Your task to perform on an android device: Open location settings Image 0: 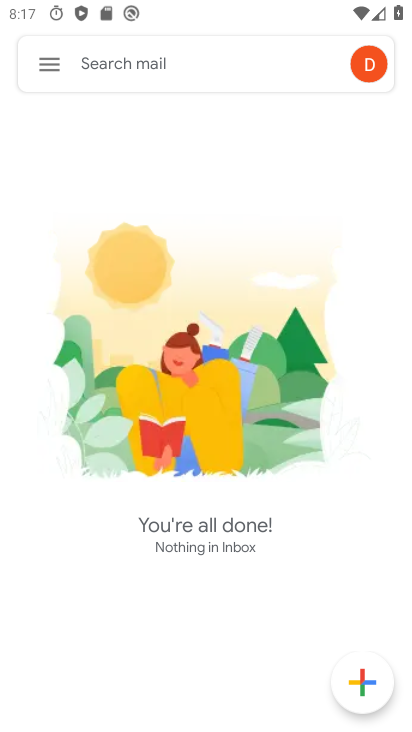
Step 0: press home button
Your task to perform on an android device: Open location settings Image 1: 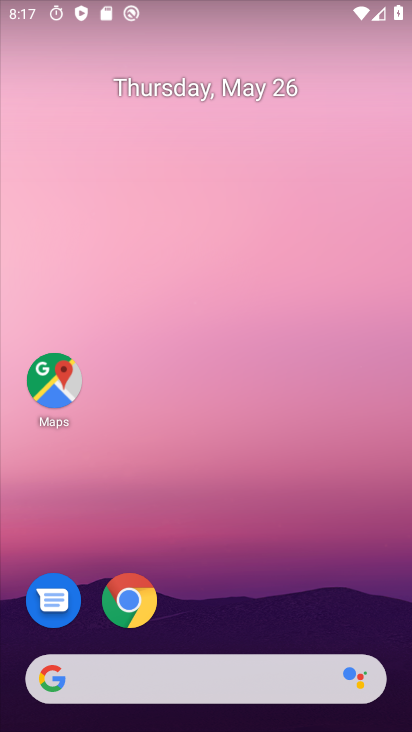
Step 1: drag from (231, 592) to (372, 12)
Your task to perform on an android device: Open location settings Image 2: 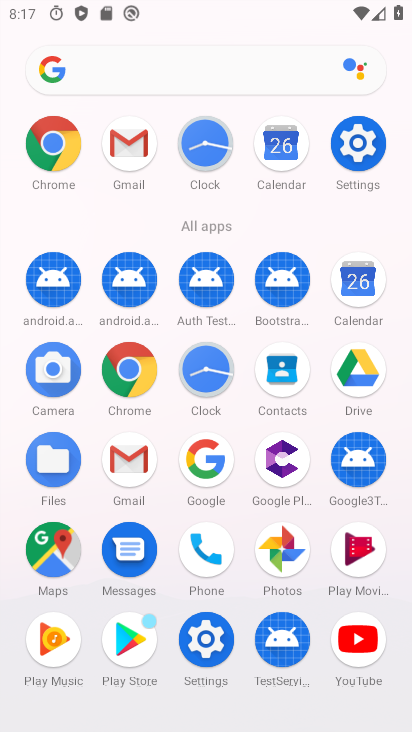
Step 2: click (361, 153)
Your task to perform on an android device: Open location settings Image 3: 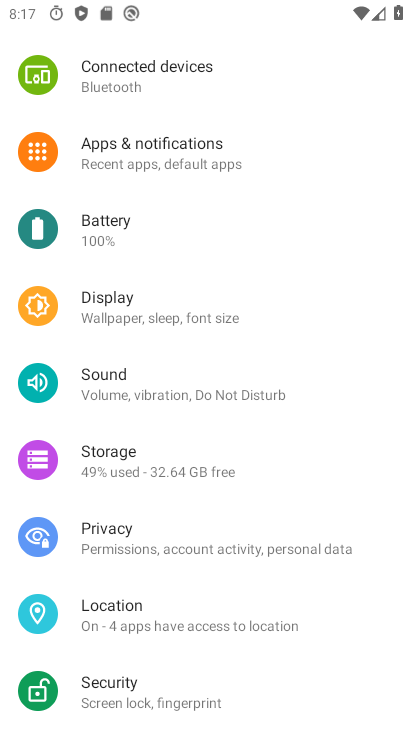
Step 3: click (139, 611)
Your task to perform on an android device: Open location settings Image 4: 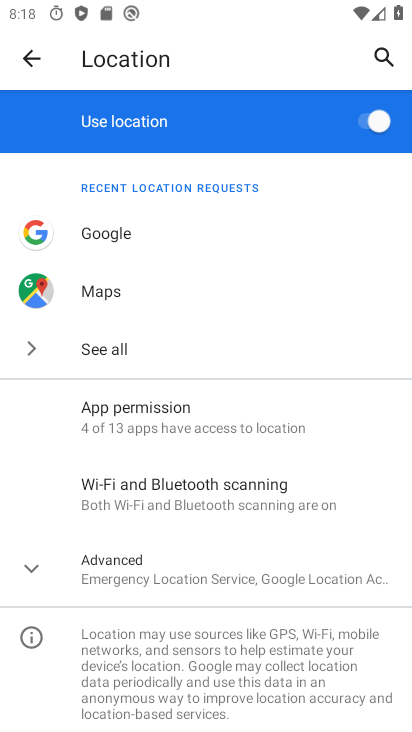
Step 4: task complete